Your task to perform on an android device: turn off location Image 0: 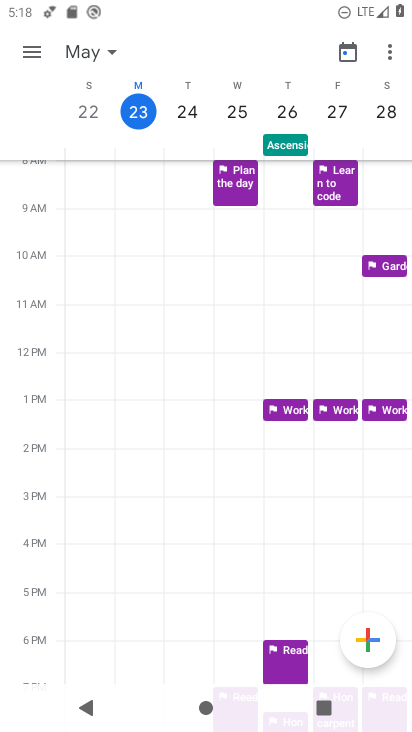
Step 0: press home button
Your task to perform on an android device: turn off location Image 1: 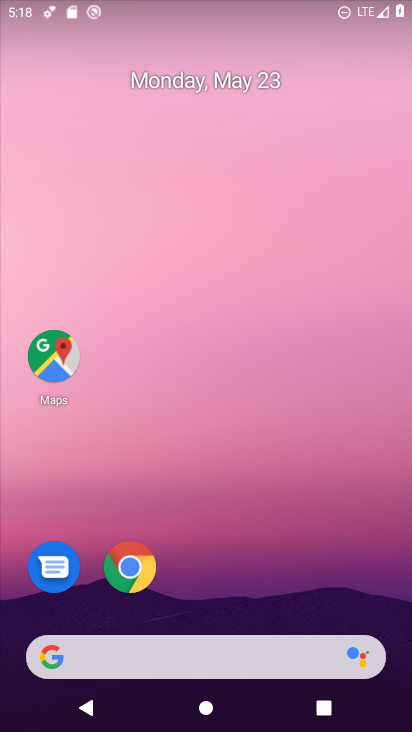
Step 1: drag from (220, 538) to (224, 102)
Your task to perform on an android device: turn off location Image 2: 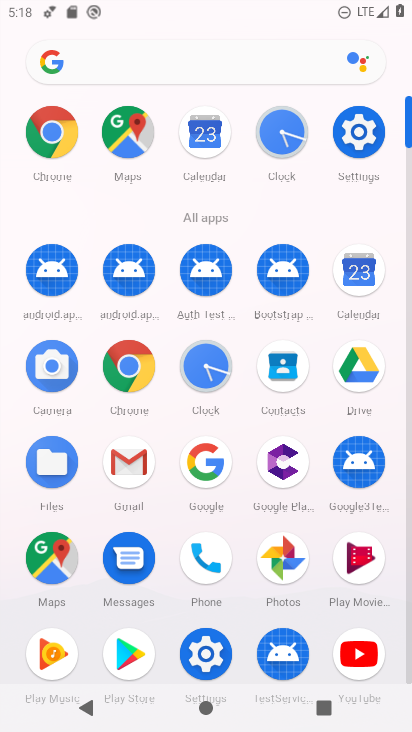
Step 2: click (207, 653)
Your task to perform on an android device: turn off location Image 3: 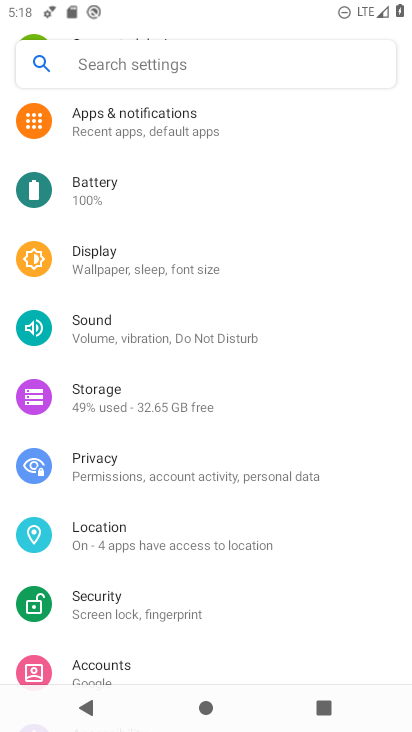
Step 3: click (144, 543)
Your task to perform on an android device: turn off location Image 4: 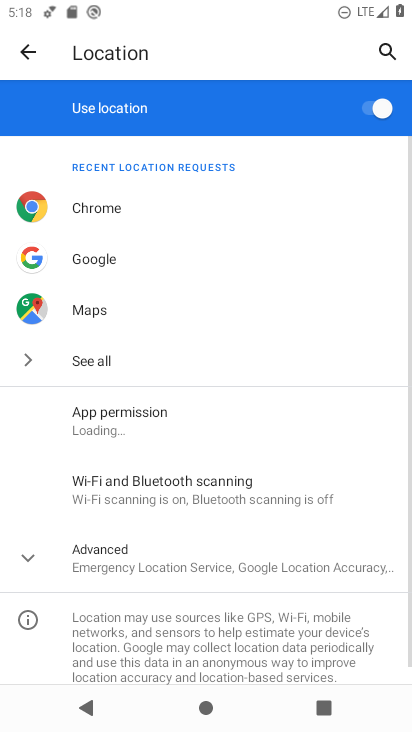
Step 4: click (381, 115)
Your task to perform on an android device: turn off location Image 5: 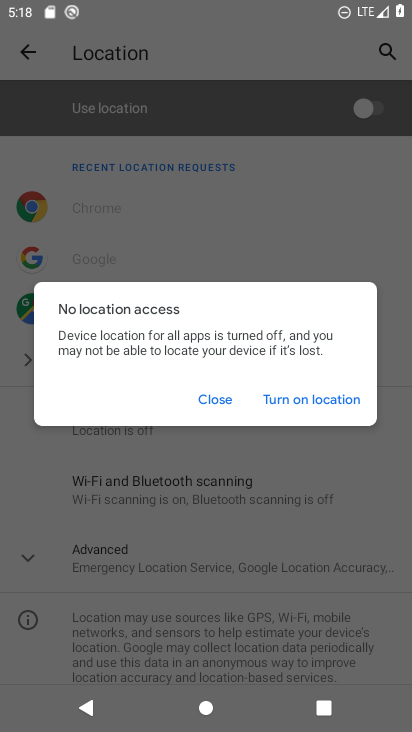
Step 5: click (221, 400)
Your task to perform on an android device: turn off location Image 6: 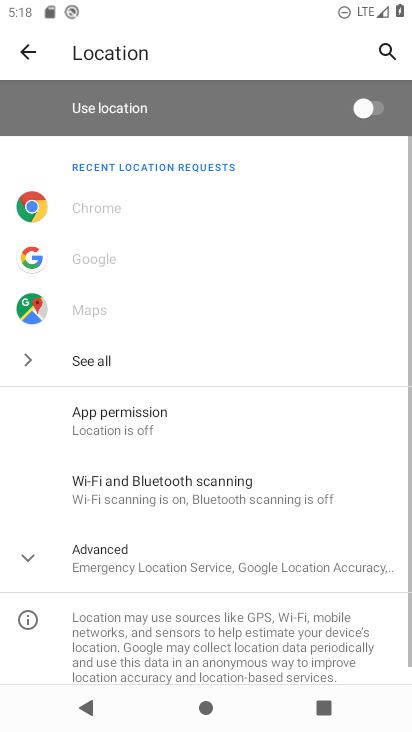
Step 6: task complete